Your task to perform on an android device: open device folders in google photos Image 0: 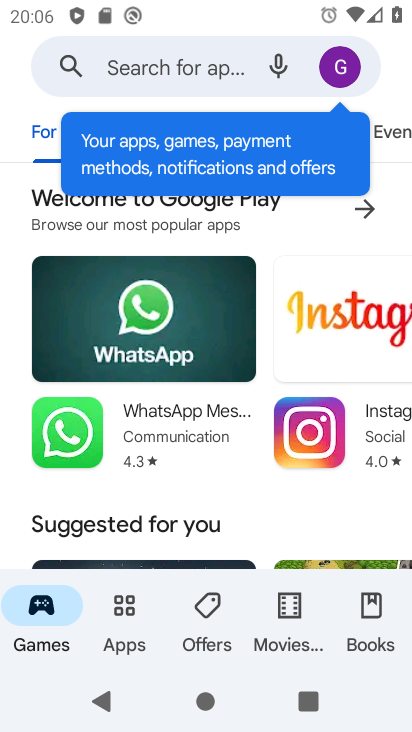
Step 0: press home button
Your task to perform on an android device: open device folders in google photos Image 1: 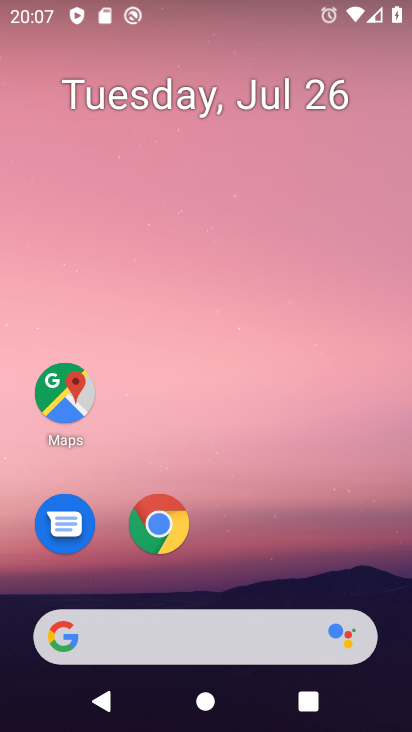
Step 1: drag from (295, 590) to (348, 0)
Your task to perform on an android device: open device folders in google photos Image 2: 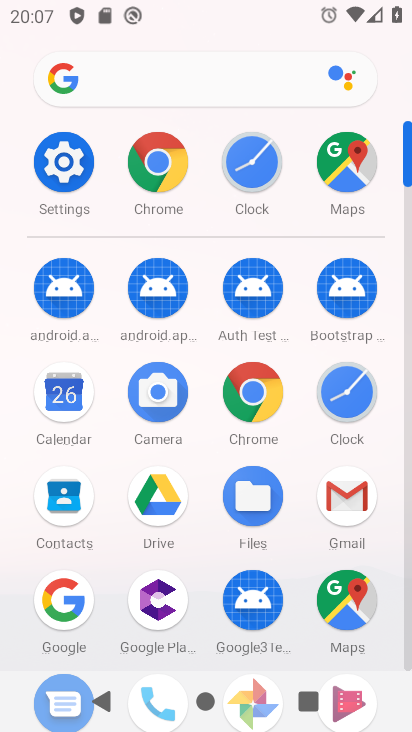
Step 2: drag from (300, 454) to (317, 146)
Your task to perform on an android device: open device folders in google photos Image 3: 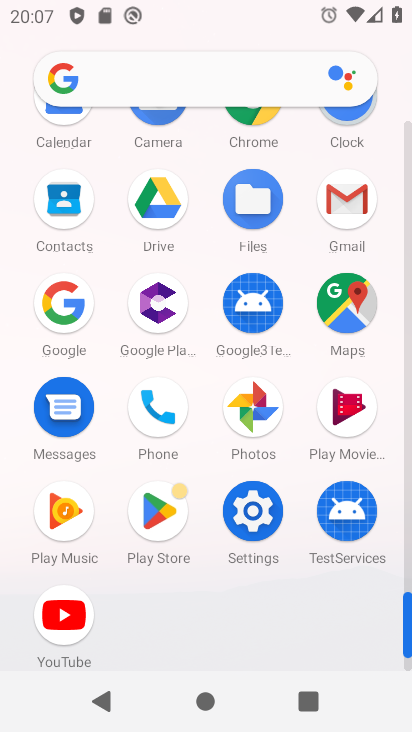
Step 3: click (255, 407)
Your task to perform on an android device: open device folders in google photos Image 4: 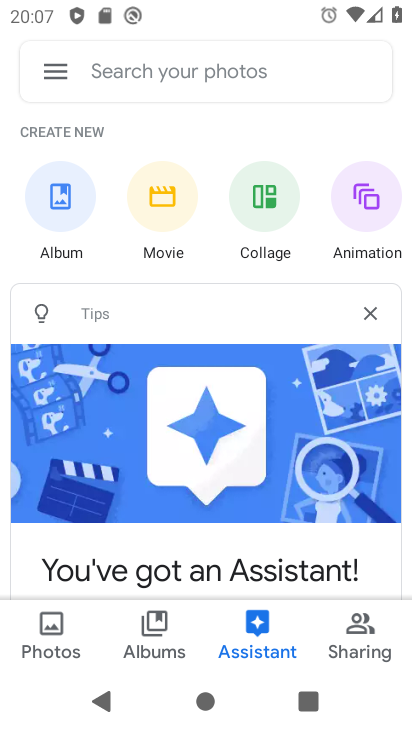
Step 4: click (61, 76)
Your task to perform on an android device: open device folders in google photos Image 5: 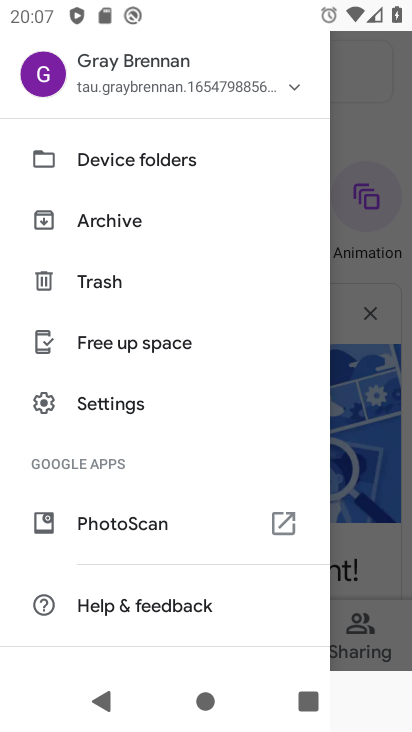
Step 5: click (109, 168)
Your task to perform on an android device: open device folders in google photos Image 6: 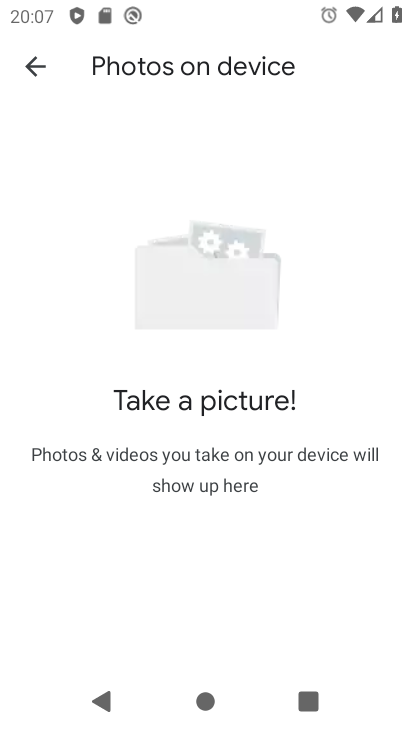
Step 6: task complete